Your task to perform on an android device: Open location settings Image 0: 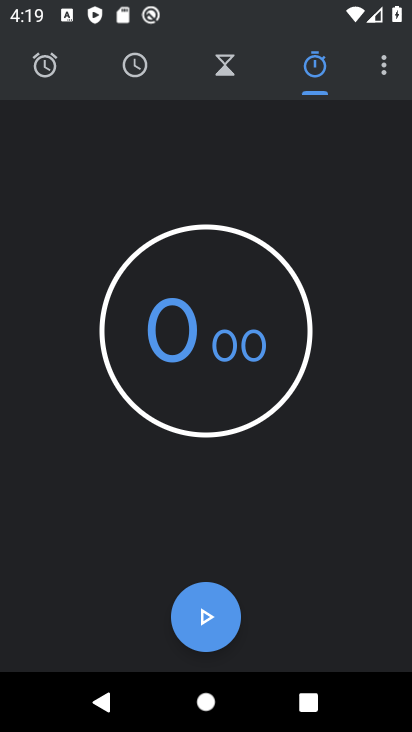
Step 0: press home button
Your task to perform on an android device: Open location settings Image 1: 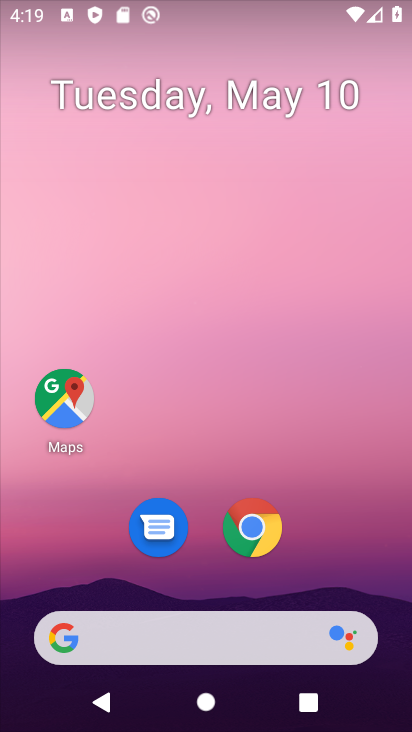
Step 1: drag from (322, 523) to (333, 27)
Your task to perform on an android device: Open location settings Image 2: 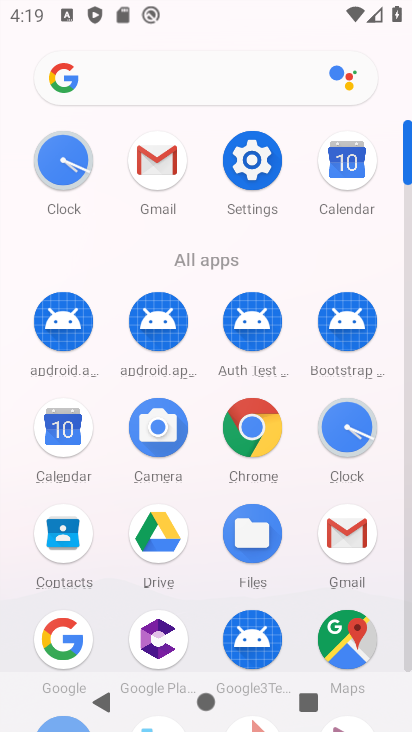
Step 2: click (260, 147)
Your task to perform on an android device: Open location settings Image 3: 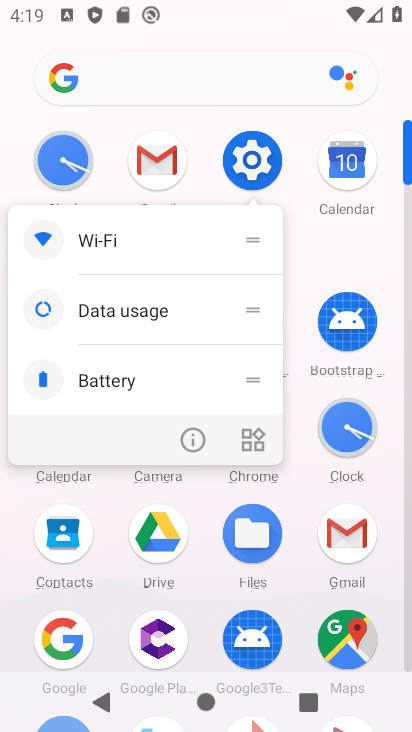
Step 3: click (250, 152)
Your task to perform on an android device: Open location settings Image 4: 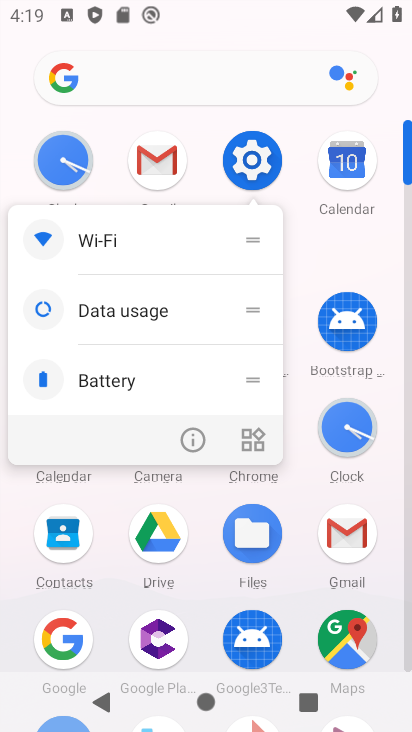
Step 4: click (250, 153)
Your task to perform on an android device: Open location settings Image 5: 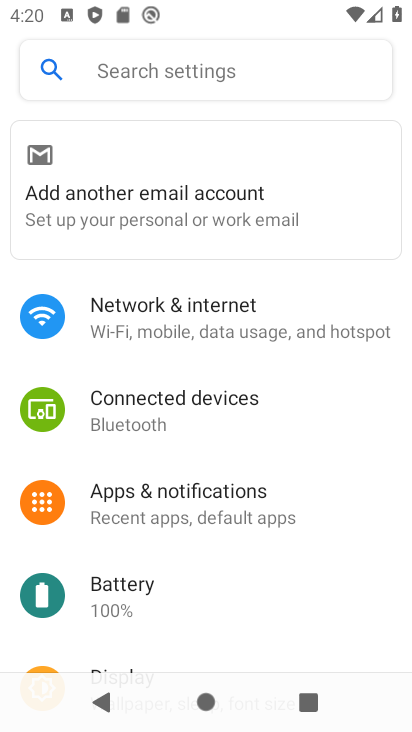
Step 5: drag from (222, 582) to (255, 50)
Your task to perform on an android device: Open location settings Image 6: 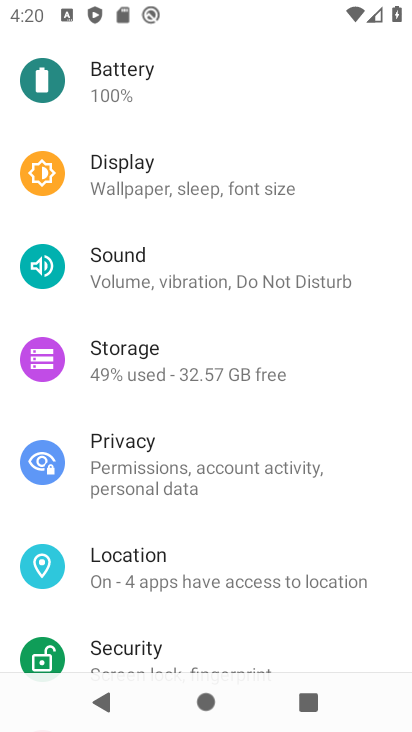
Step 6: click (187, 562)
Your task to perform on an android device: Open location settings Image 7: 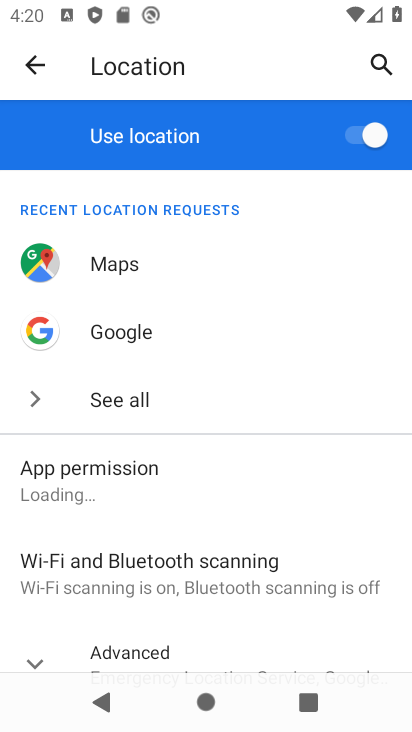
Step 7: task complete